Your task to perform on an android device: Go to Google maps Image 0: 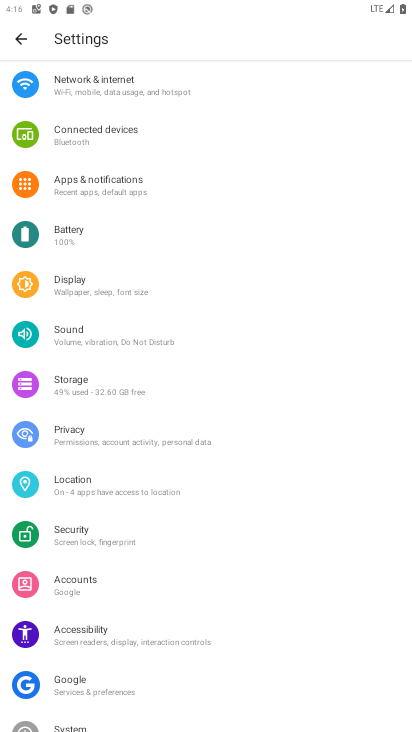
Step 0: press home button
Your task to perform on an android device: Go to Google maps Image 1: 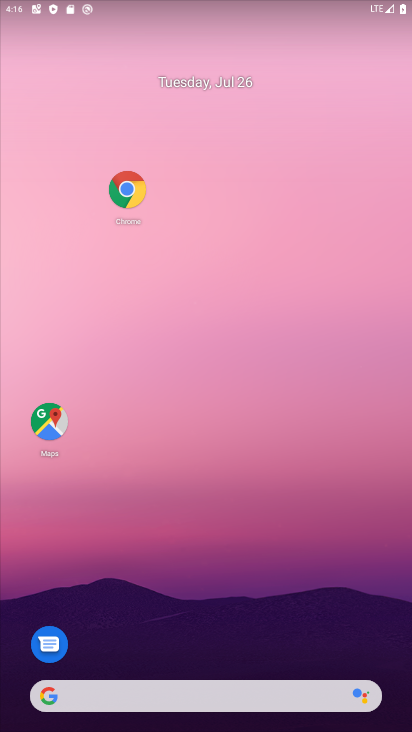
Step 1: click (54, 424)
Your task to perform on an android device: Go to Google maps Image 2: 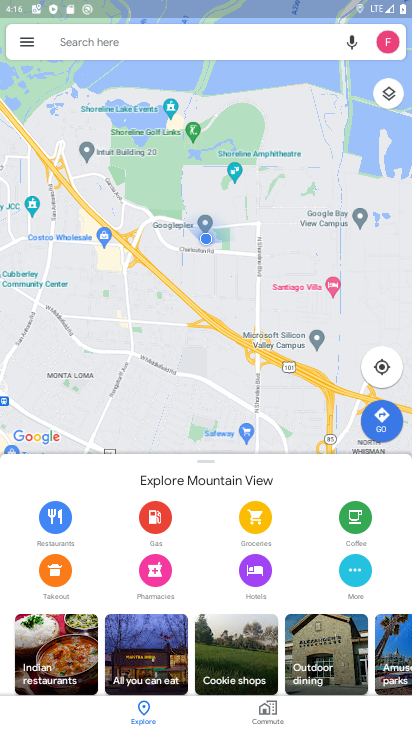
Step 2: task complete